Your task to perform on an android device: What's the weather today? Image 0: 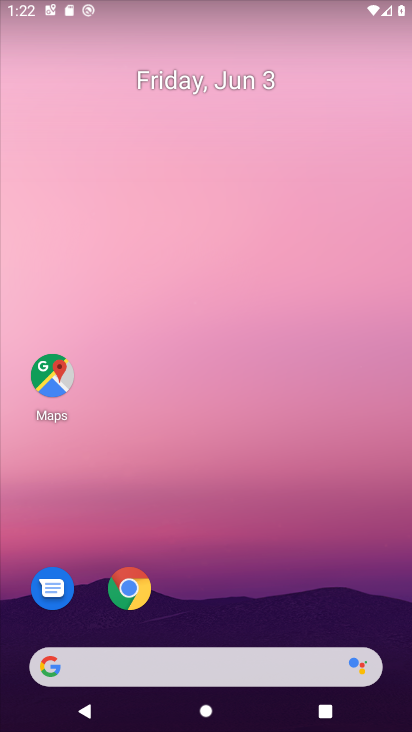
Step 0: drag from (243, 653) to (135, 151)
Your task to perform on an android device: What's the weather today? Image 1: 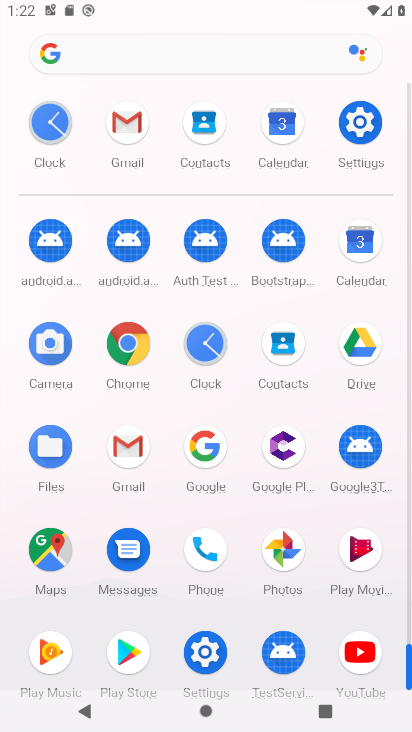
Step 1: click (202, 462)
Your task to perform on an android device: What's the weather today? Image 2: 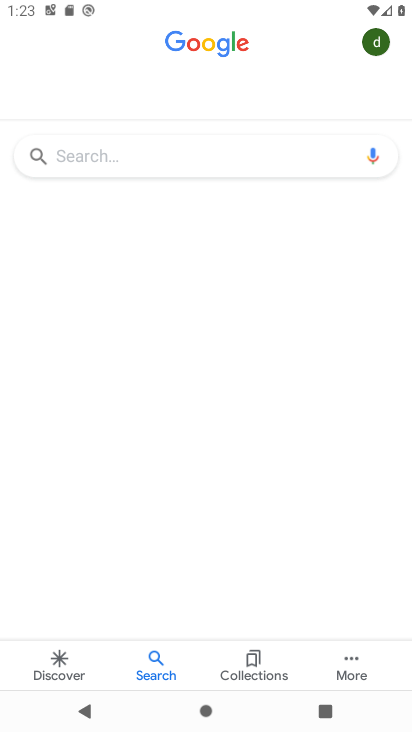
Step 2: click (105, 165)
Your task to perform on an android device: What's the weather today? Image 3: 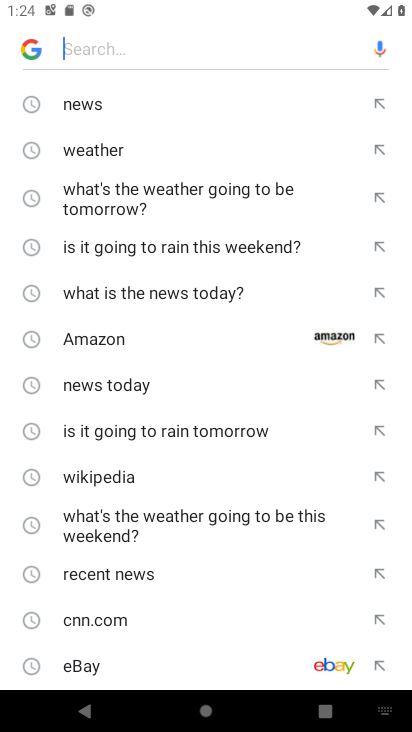
Step 3: click (126, 148)
Your task to perform on an android device: What's the weather today? Image 4: 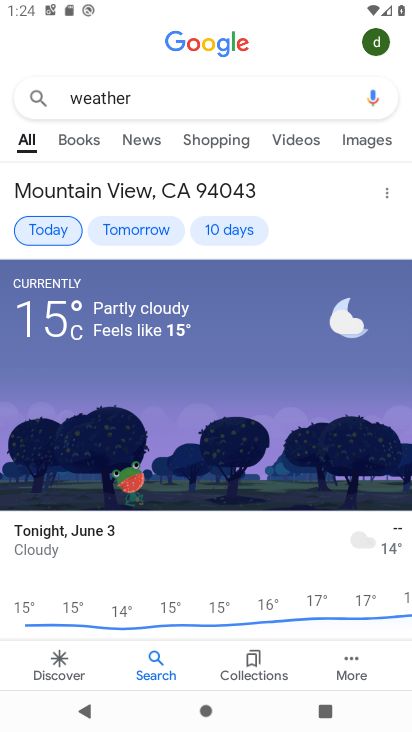
Step 4: task complete